Your task to perform on an android device: Go to Reddit.com Image 0: 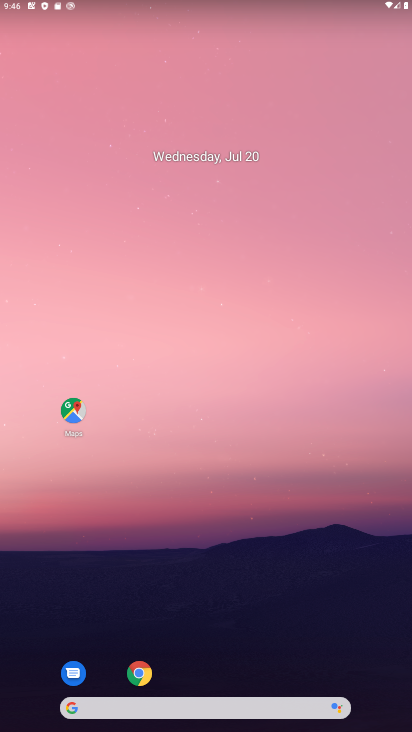
Step 0: click (139, 672)
Your task to perform on an android device: Go to Reddit.com Image 1: 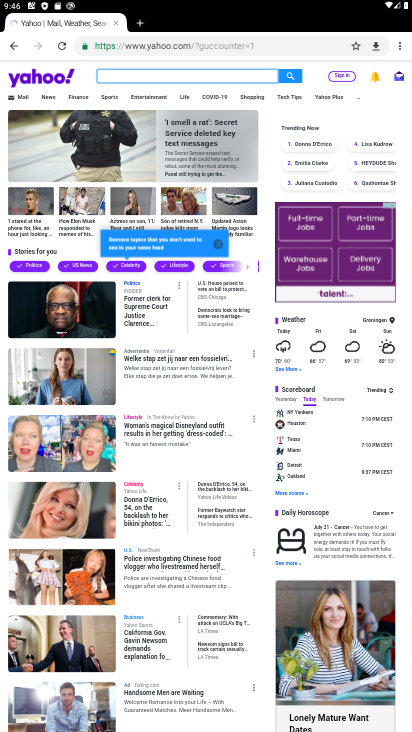
Step 1: click (286, 44)
Your task to perform on an android device: Go to Reddit.com Image 2: 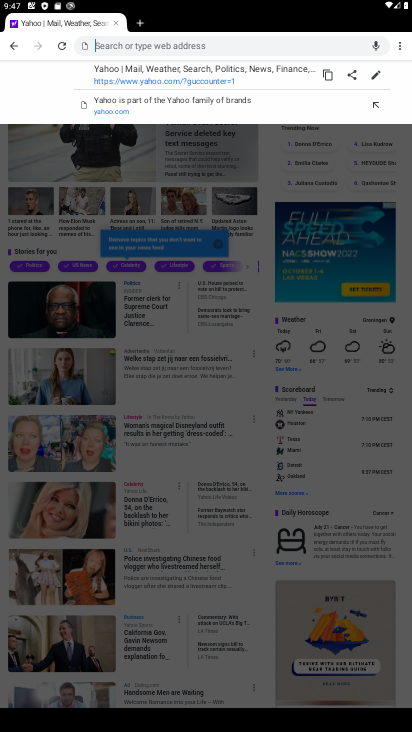
Step 2: type "Reddit.com"
Your task to perform on an android device: Go to Reddit.com Image 3: 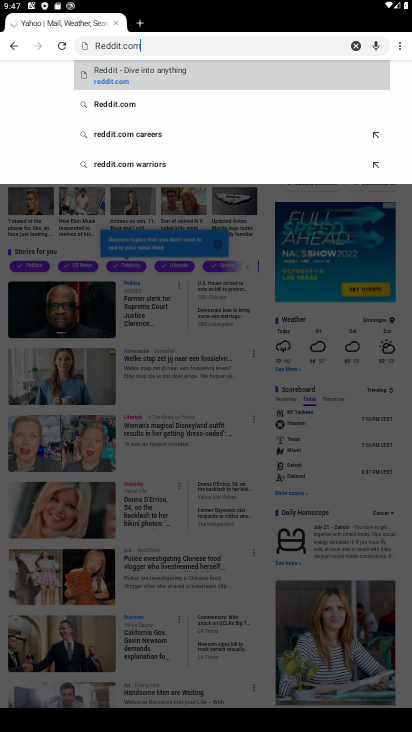
Step 3: click (132, 104)
Your task to perform on an android device: Go to Reddit.com Image 4: 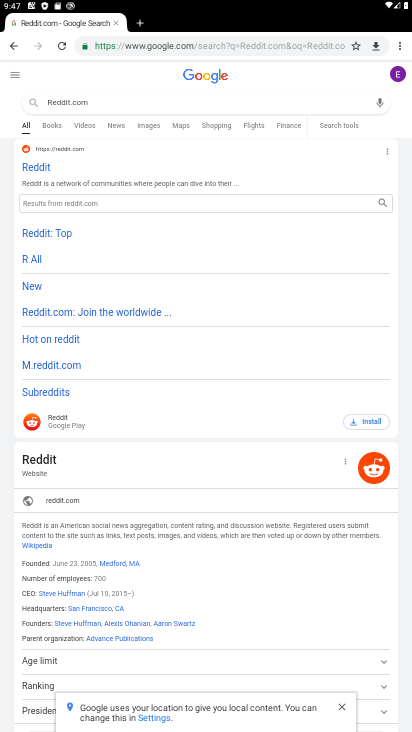
Step 4: click (41, 167)
Your task to perform on an android device: Go to Reddit.com Image 5: 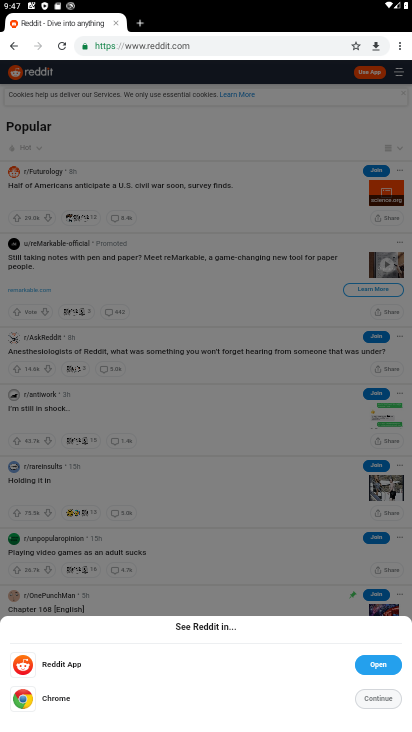
Step 5: click (377, 693)
Your task to perform on an android device: Go to Reddit.com Image 6: 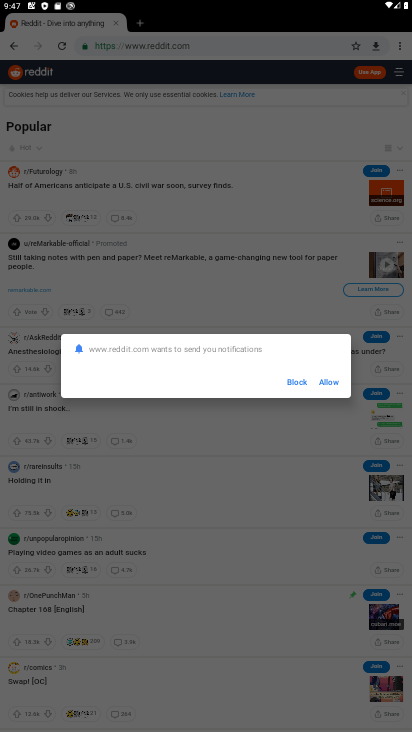
Step 6: click (333, 386)
Your task to perform on an android device: Go to Reddit.com Image 7: 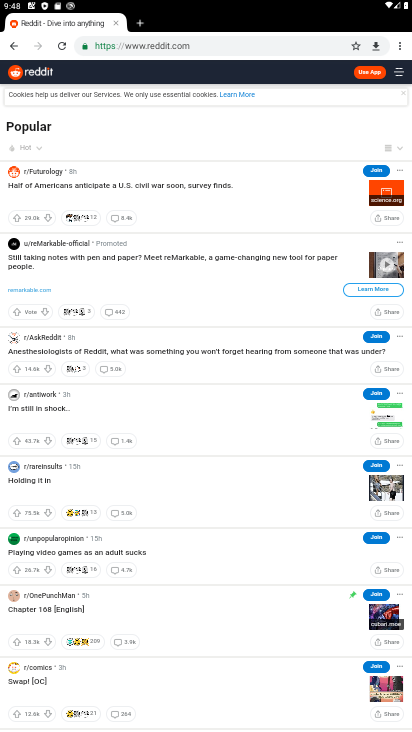
Step 7: task complete